Your task to perform on an android device: make emails show in primary in the gmail app Image 0: 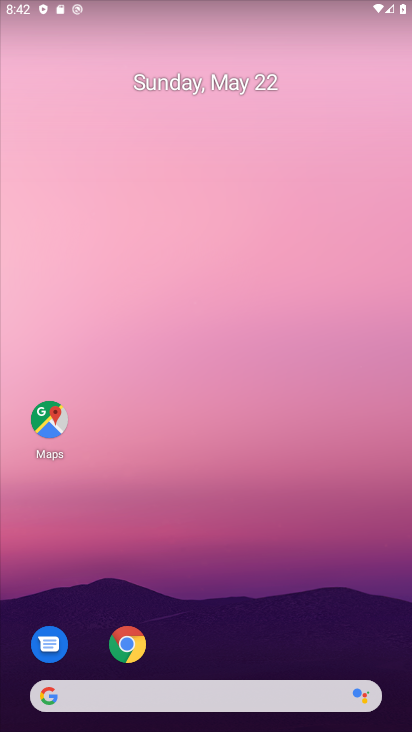
Step 0: drag from (270, 706) to (298, 375)
Your task to perform on an android device: make emails show in primary in the gmail app Image 1: 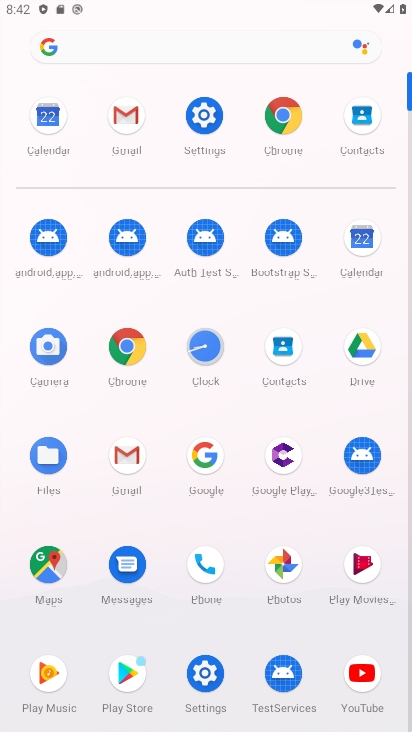
Step 1: click (124, 468)
Your task to perform on an android device: make emails show in primary in the gmail app Image 2: 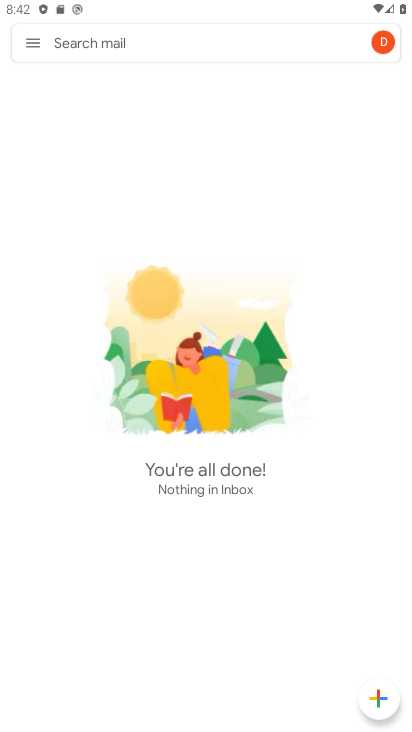
Step 2: click (27, 46)
Your task to perform on an android device: make emails show in primary in the gmail app Image 3: 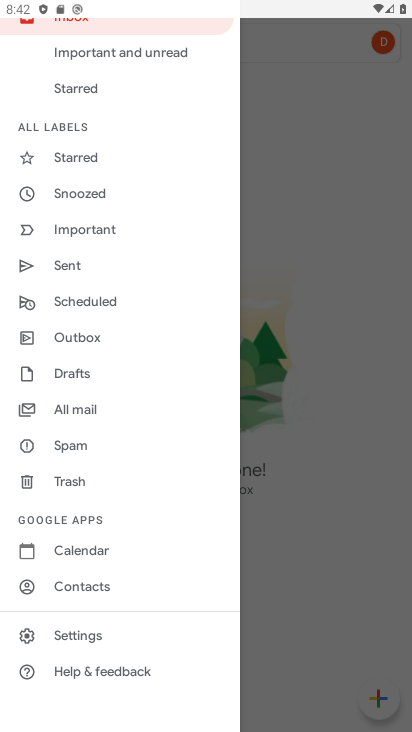
Step 3: click (84, 633)
Your task to perform on an android device: make emails show in primary in the gmail app Image 4: 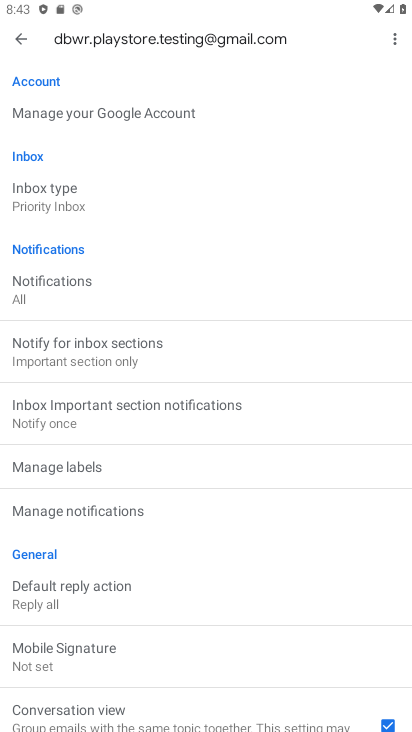
Step 4: click (85, 215)
Your task to perform on an android device: make emails show in primary in the gmail app Image 5: 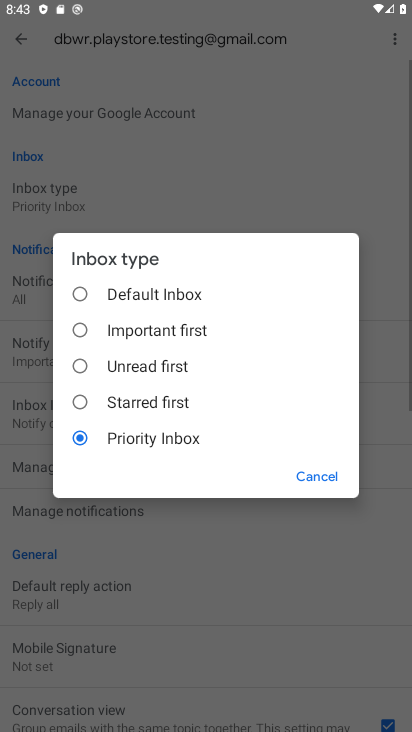
Step 5: click (124, 291)
Your task to perform on an android device: make emails show in primary in the gmail app Image 6: 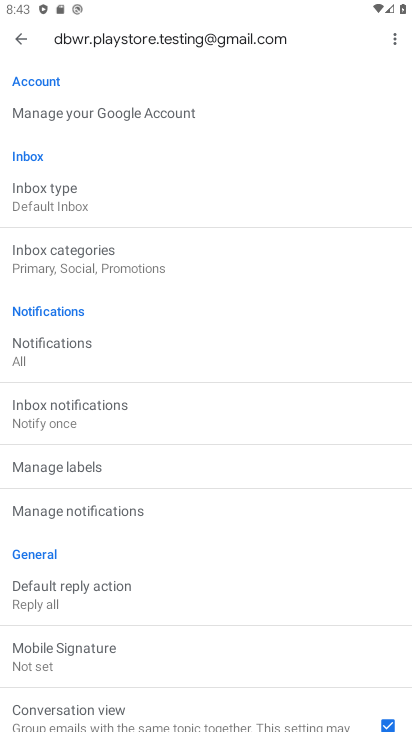
Step 6: click (83, 251)
Your task to perform on an android device: make emails show in primary in the gmail app Image 7: 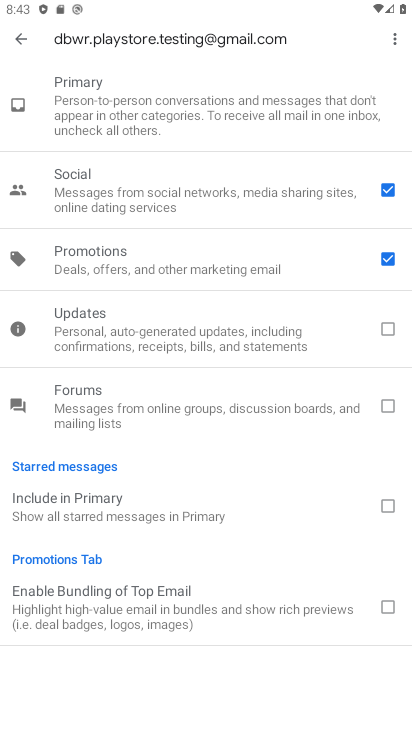
Step 7: click (380, 283)
Your task to perform on an android device: make emails show in primary in the gmail app Image 8: 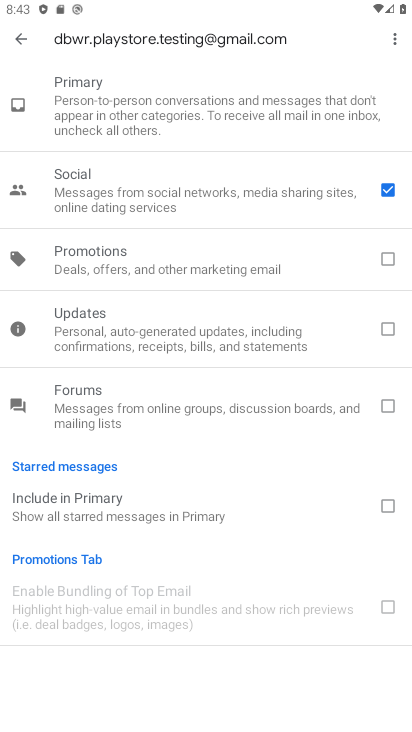
Step 8: click (354, 200)
Your task to perform on an android device: make emails show in primary in the gmail app Image 9: 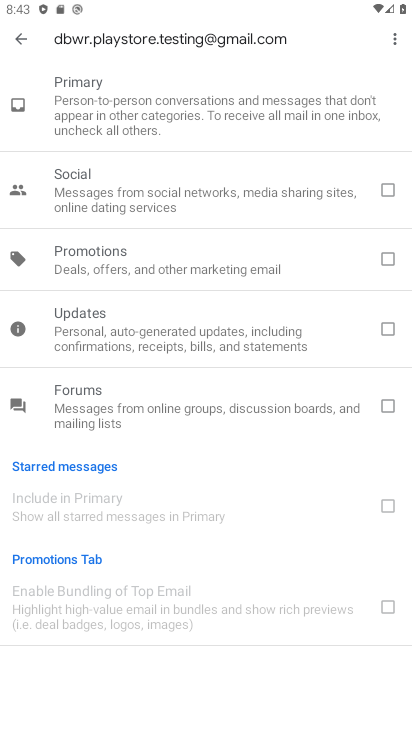
Step 9: click (397, 190)
Your task to perform on an android device: make emails show in primary in the gmail app Image 10: 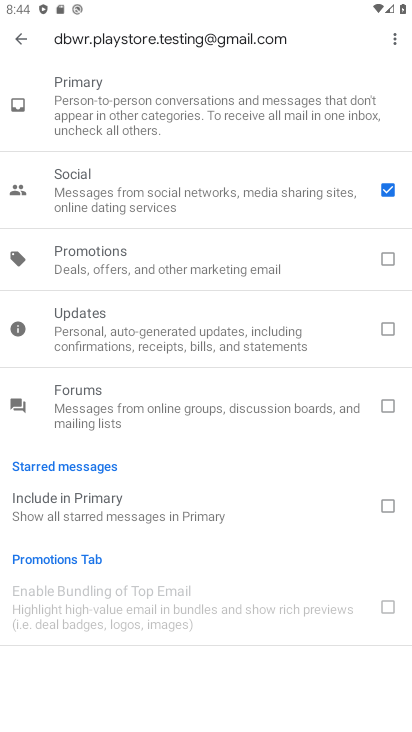
Step 10: task complete